Your task to perform on an android device: Open Wikipedia Image 0: 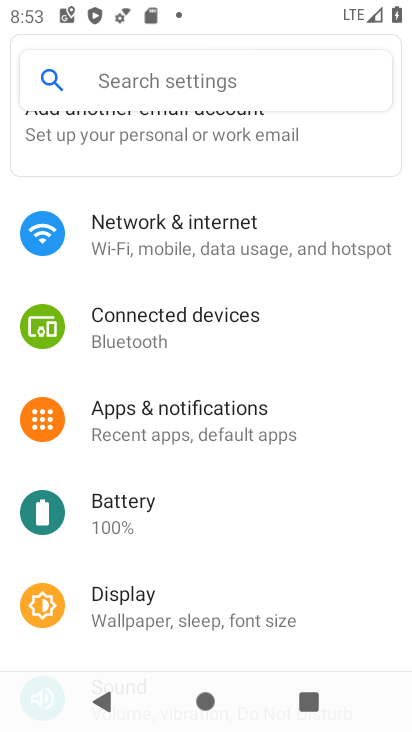
Step 0: press home button
Your task to perform on an android device: Open Wikipedia Image 1: 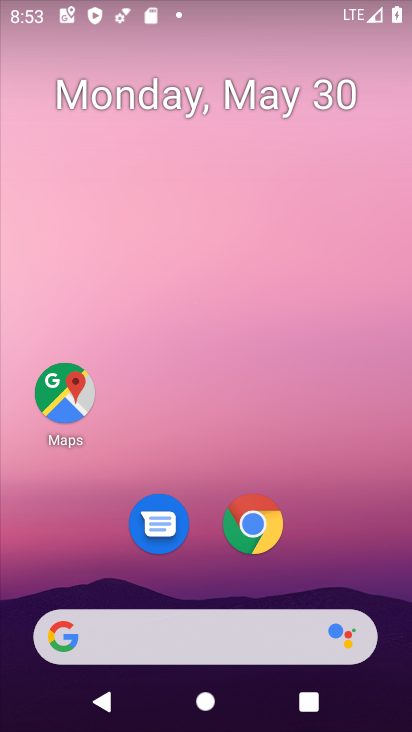
Step 1: click (261, 539)
Your task to perform on an android device: Open Wikipedia Image 2: 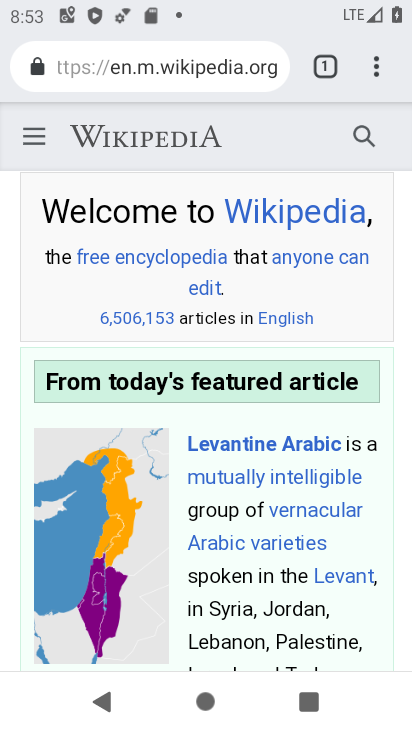
Step 2: task complete